Your task to perform on an android device: choose inbox layout in the gmail app Image 0: 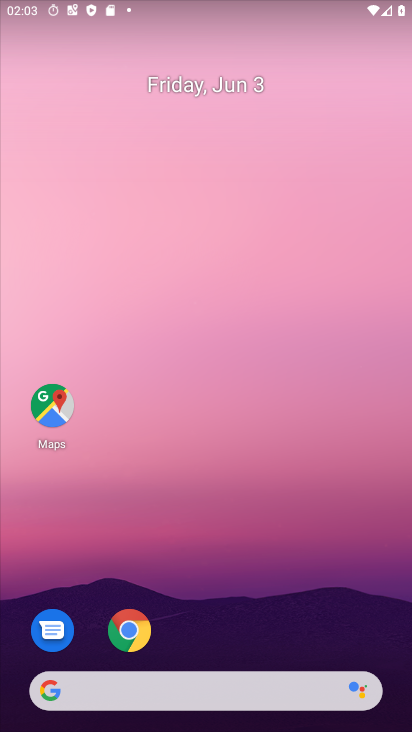
Step 0: drag from (276, 645) to (230, 255)
Your task to perform on an android device: choose inbox layout in the gmail app Image 1: 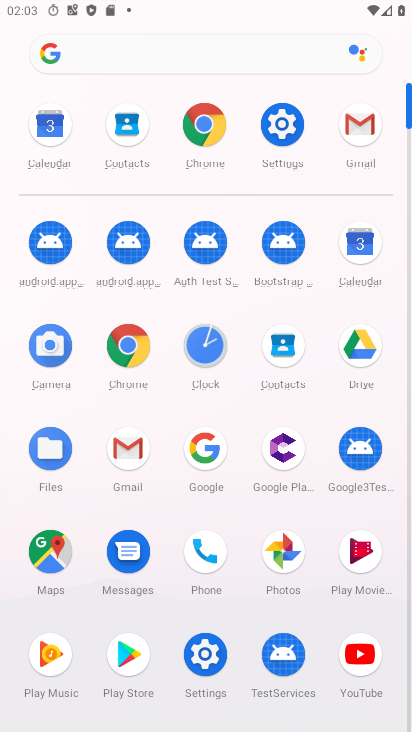
Step 1: click (359, 135)
Your task to perform on an android device: choose inbox layout in the gmail app Image 2: 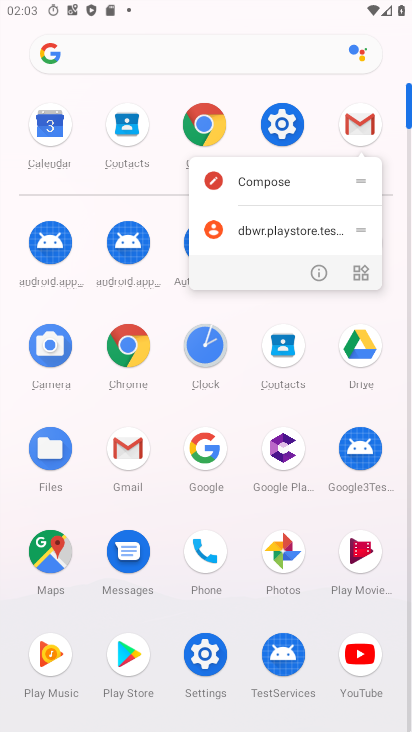
Step 2: click (372, 136)
Your task to perform on an android device: choose inbox layout in the gmail app Image 3: 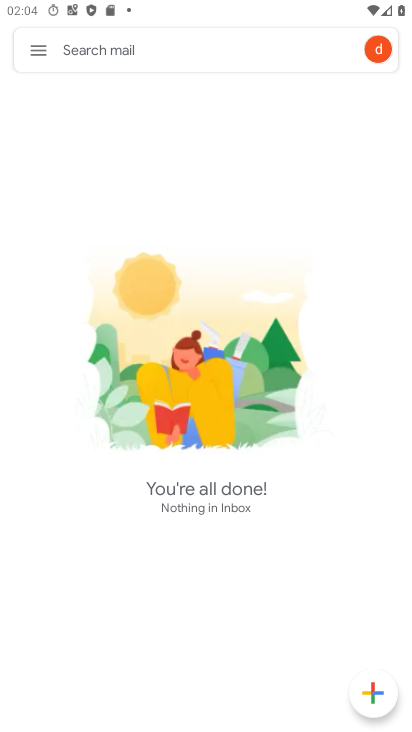
Step 3: click (35, 57)
Your task to perform on an android device: choose inbox layout in the gmail app Image 4: 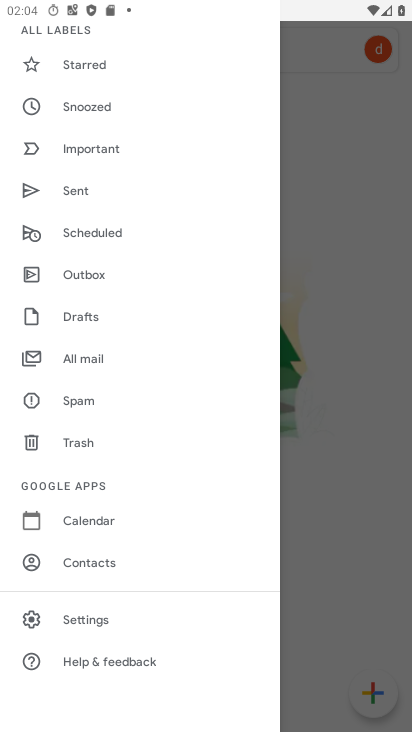
Step 4: click (95, 621)
Your task to perform on an android device: choose inbox layout in the gmail app Image 5: 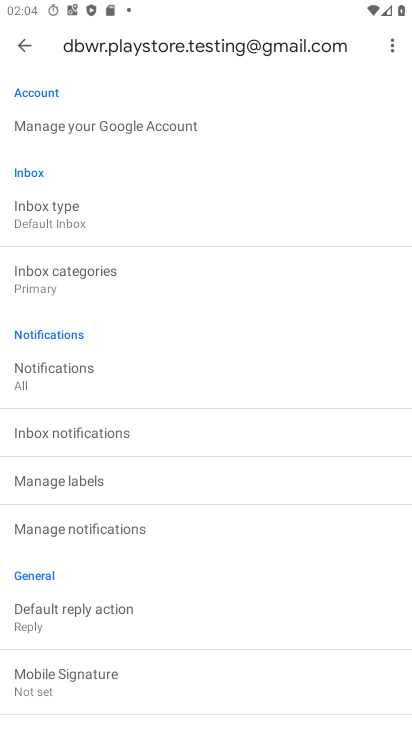
Step 5: click (93, 209)
Your task to perform on an android device: choose inbox layout in the gmail app Image 6: 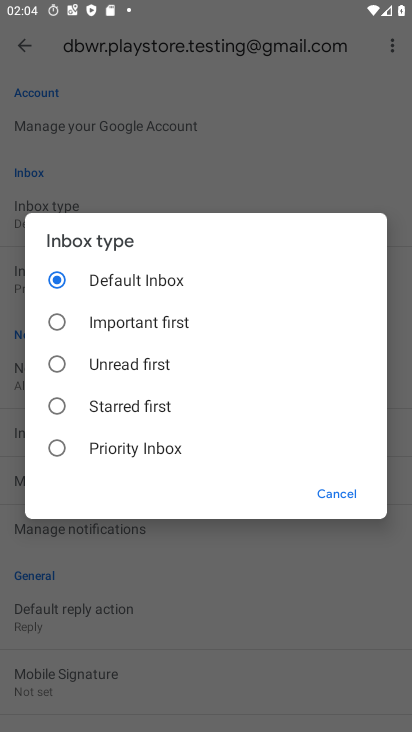
Step 6: click (137, 323)
Your task to perform on an android device: choose inbox layout in the gmail app Image 7: 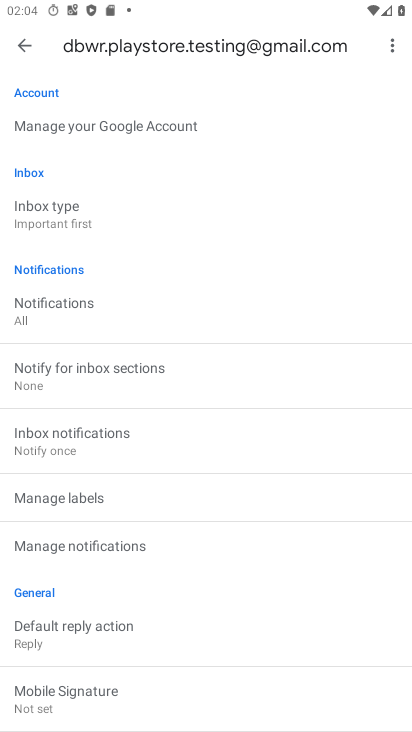
Step 7: task complete